Your task to perform on an android device: turn off notifications in google photos Image 0: 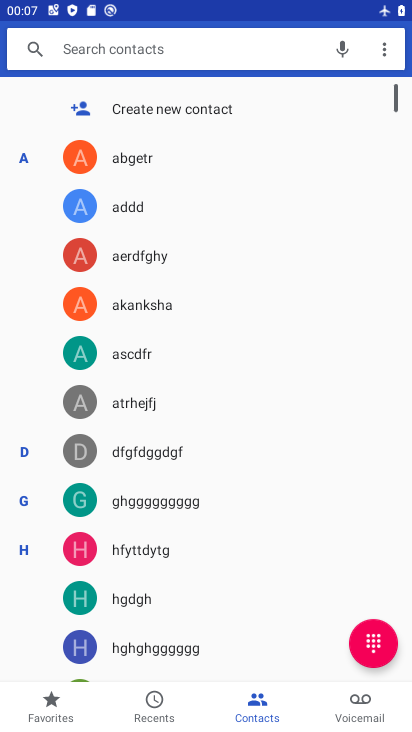
Step 0: press home button
Your task to perform on an android device: turn off notifications in google photos Image 1: 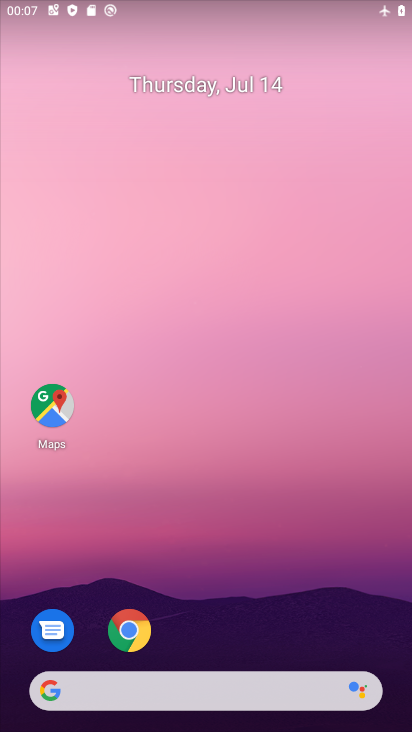
Step 1: drag from (367, 608) to (346, 87)
Your task to perform on an android device: turn off notifications in google photos Image 2: 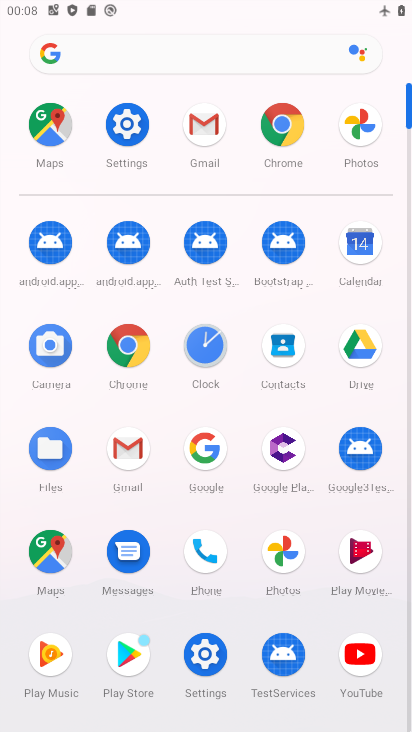
Step 2: click (276, 545)
Your task to perform on an android device: turn off notifications in google photos Image 3: 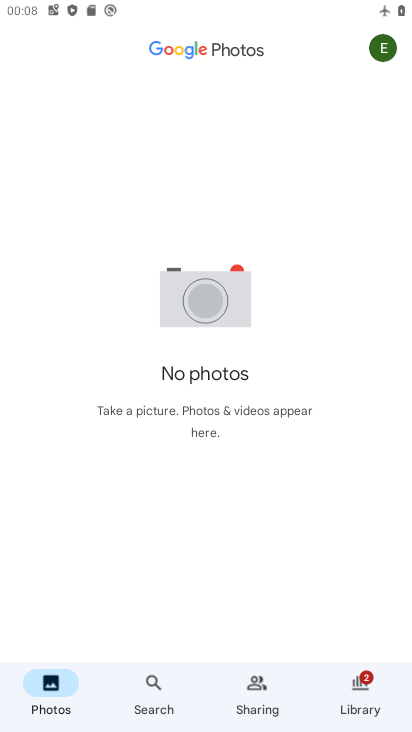
Step 3: click (383, 50)
Your task to perform on an android device: turn off notifications in google photos Image 4: 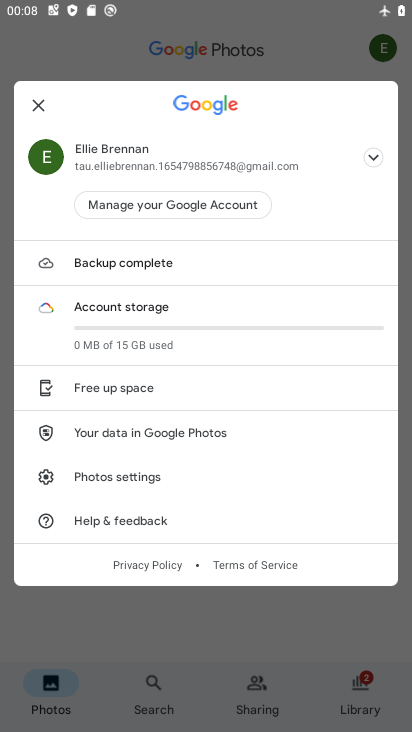
Step 4: click (174, 482)
Your task to perform on an android device: turn off notifications in google photos Image 5: 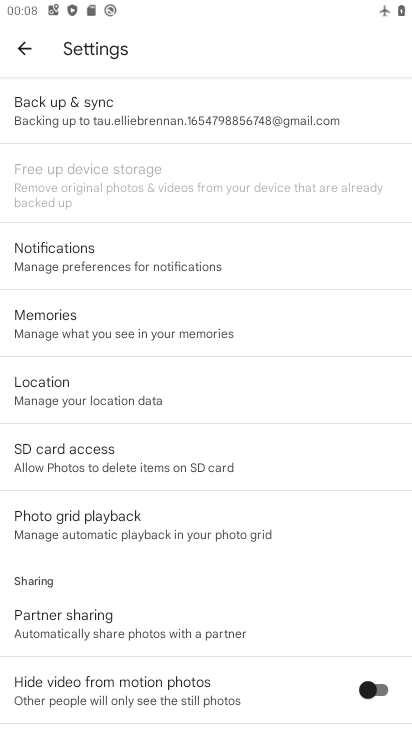
Step 5: drag from (353, 511) to (352, 403)
Your task to perform on an android device: turn off notifications in google photos Image 6: 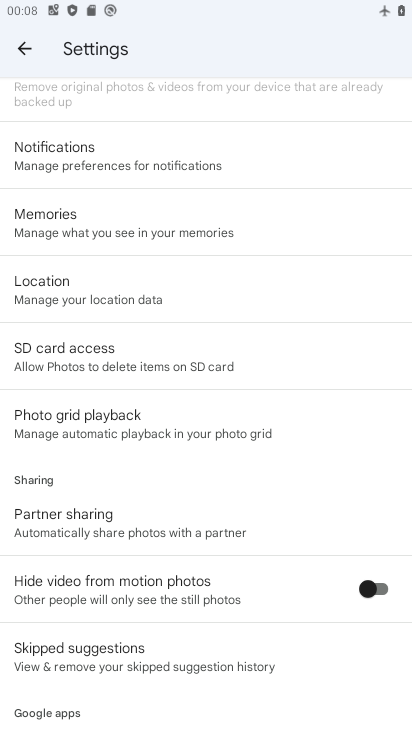
Step 6: drag from (341, 508) to (343, 407)
Your task to perform on an android device: turn off notifications in google photos Image 7: 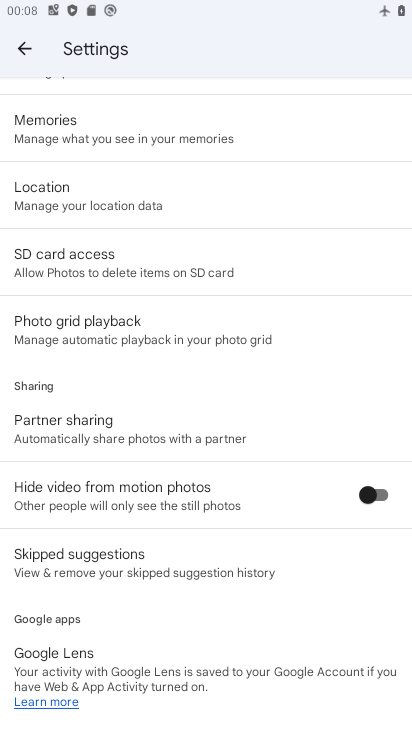
Step 7: drag from (327, 541) to (325, 438)
Your task to perform on an android device: turn off notifications in google photos Image 8: 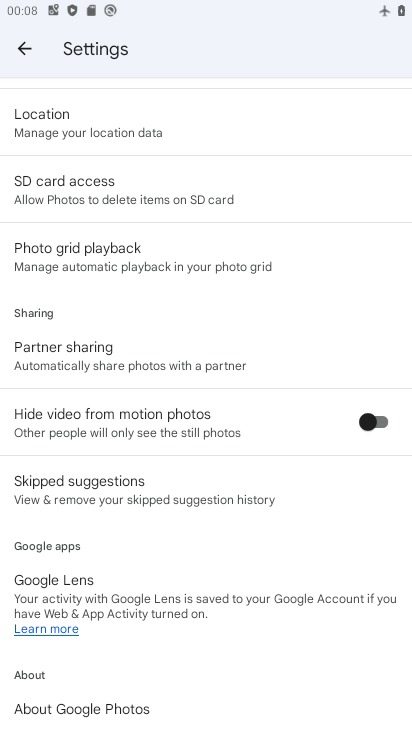
Step 8: drag from (333, 574) to (328, 427)
Your task to perform on an android device: turn off notifications in google photos Image 9: 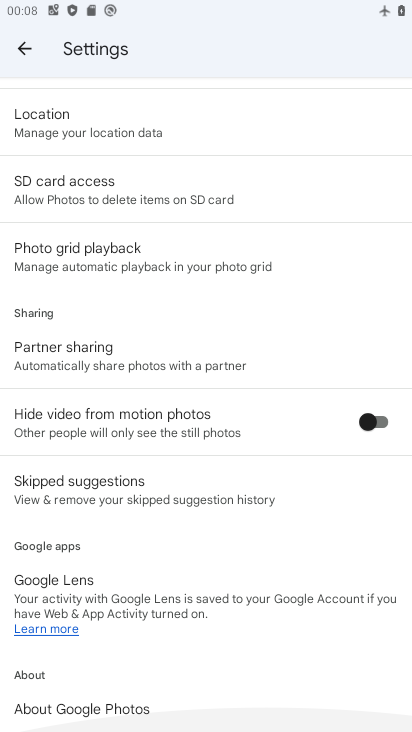
Step 9: drag from (328, 330) to (332, 404)
Your task to perform on an android device: turn off notifications in google photos Image 10: 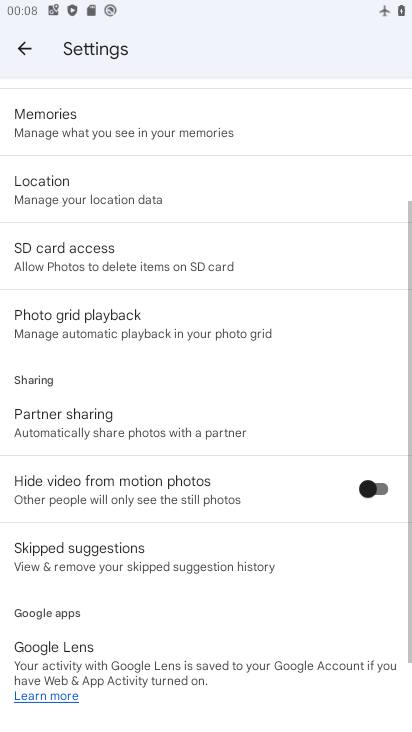
Step 10: drag from (331, 303) to (331, 402)
Your task to perform on an android device: turn off notifications in google photos Image 11: 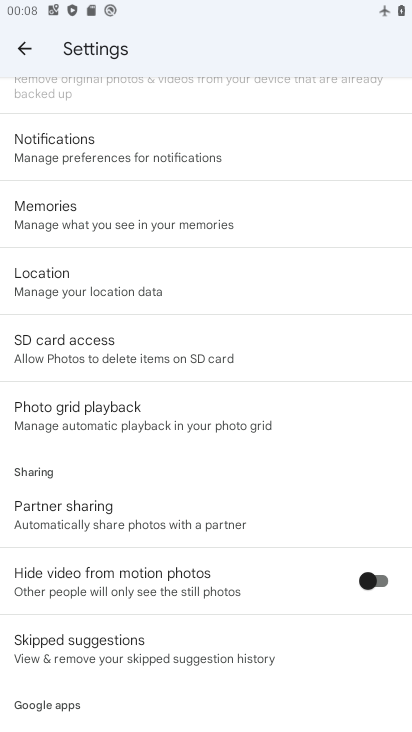
Step 11: drag from (324, 283) to (325, 373)
Your task to perform on an android device: turn off notifications in google photos Image 12: 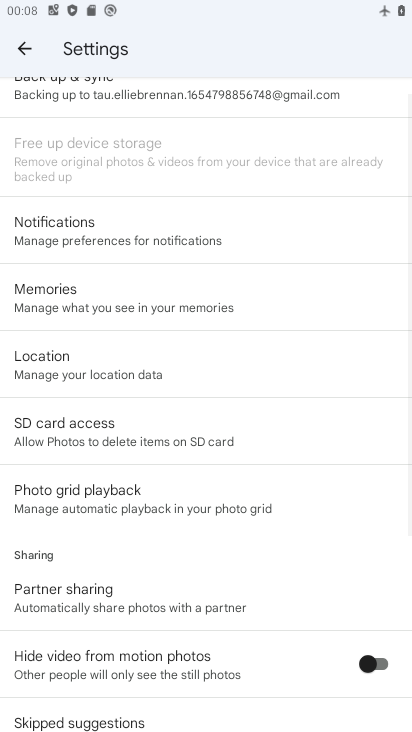
Step 12: drag from (325, 275) to (325, 415)
Your task to perform on an android device: turn off notifications in google photos Image 13: 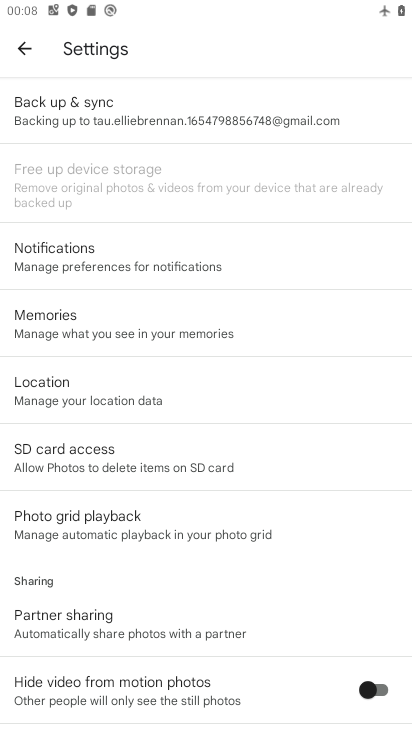
Step 13: click (268, 277)
Your task to perform on an android device: turn off notifications in google photos Image 14: 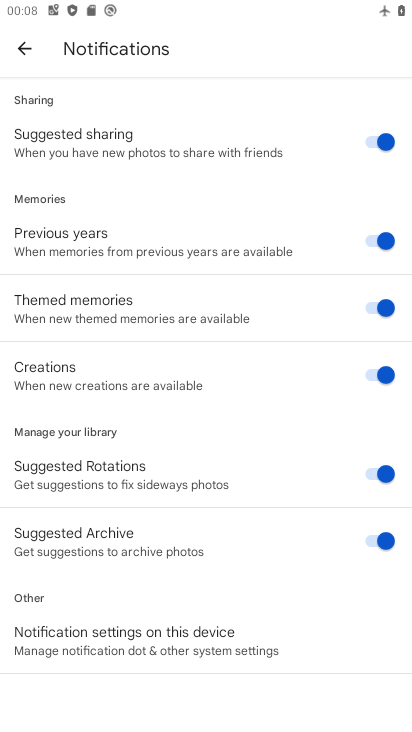
Step 14: click (260, 653)
Your task to perform on an android device: turn off notifications in google photos Image 15: 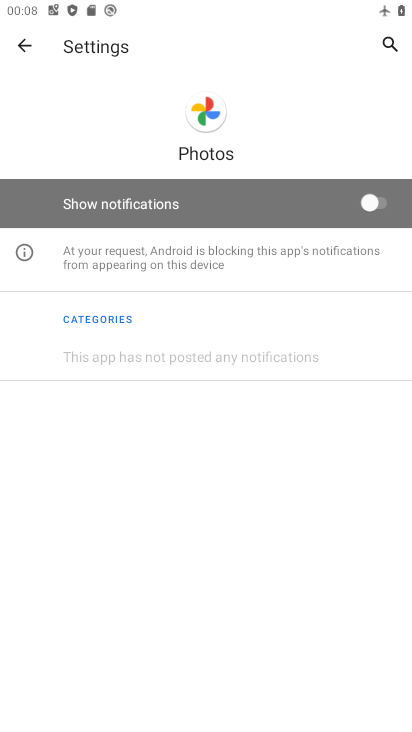
Step 15: task complete